Your task to perform on an android device: Search for vegetarian restaurants on Maps Image 0: 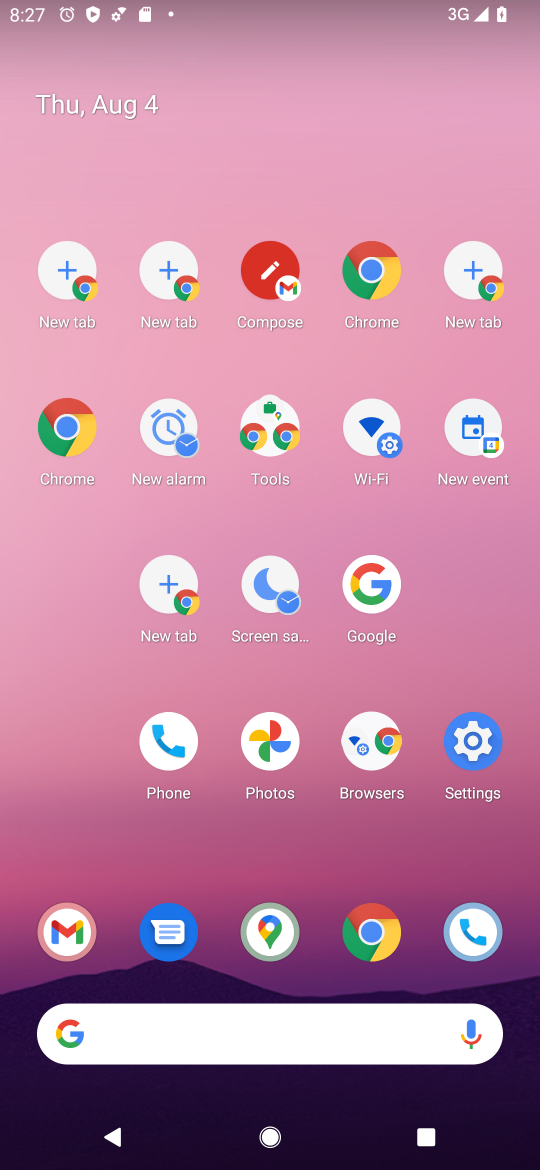
Step 0: drag from (246, 669) to (324, 618)
Your task to perform on an android device: Search for vegetarian restaurants on Maps Image 1: 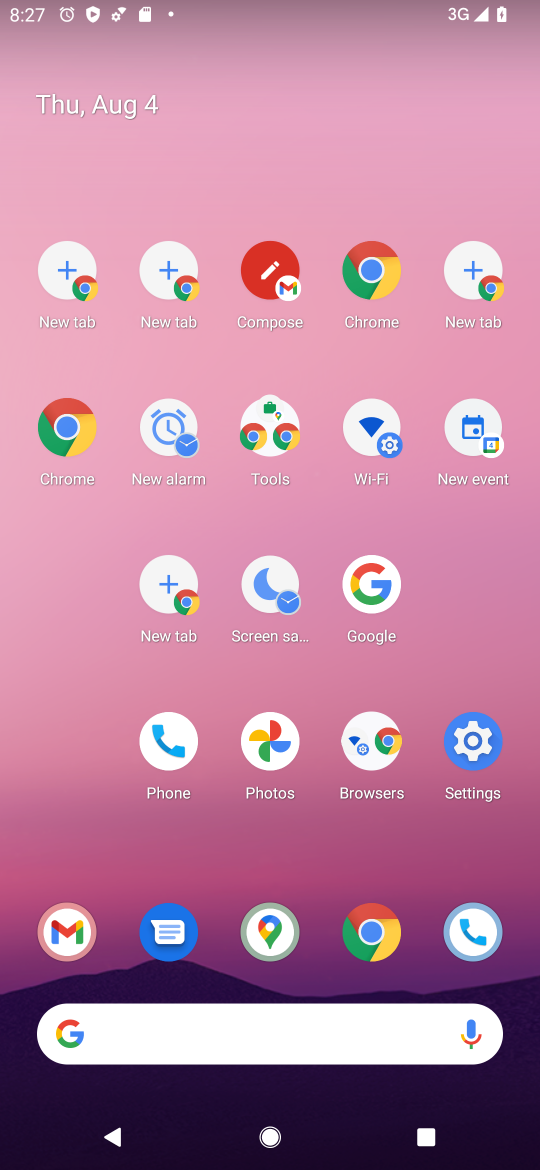
Step 1: drag from (377, 650) to (166, 442)
Your task to perform on an android device: Search for vegetarian restaurants on Maps Image 2: 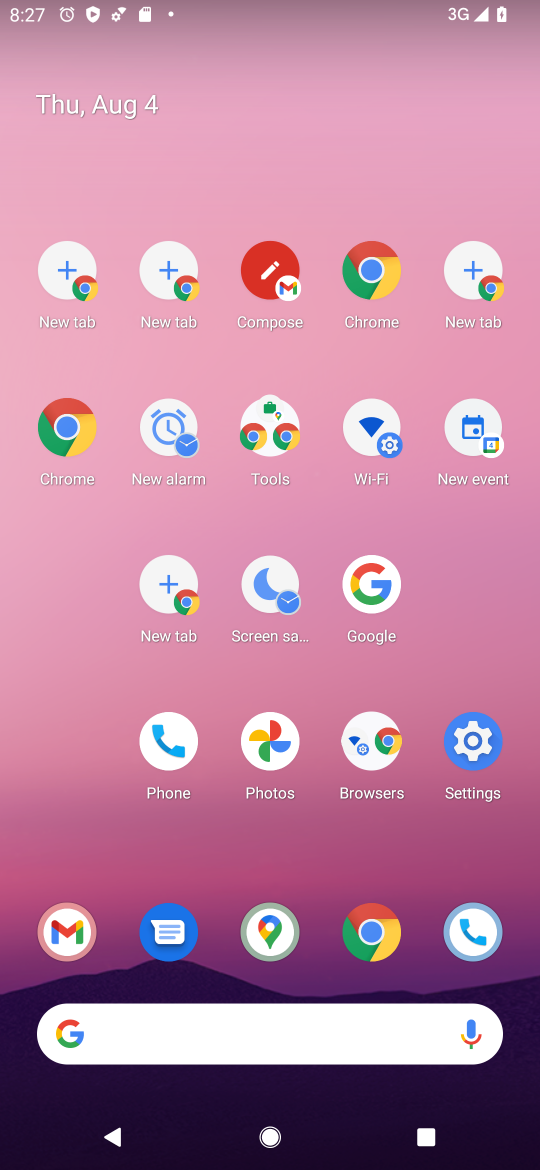
Step 2: drag from (292, 802) to (216, 82)
Your task to perform on an android device: Search for vegetarian restaurants on Maps Image 3: 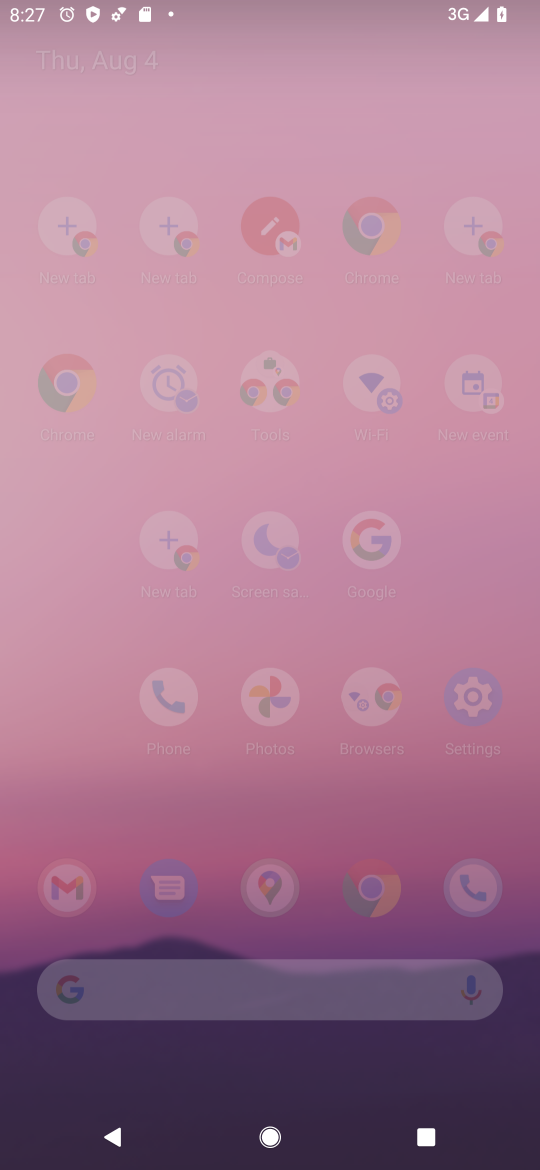
Step 3: drag from (214, 349) to (205, 21)
Your task to perform on an android device: Search for vegetarian restaurants on Maps Image 4: 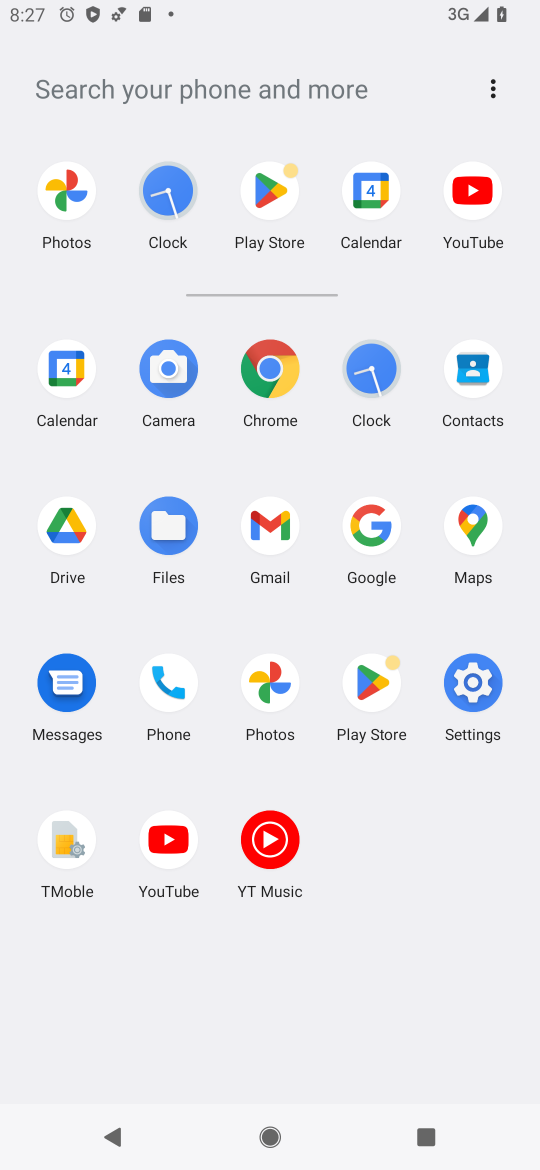
Step 4: click (466, 536)
Your task to perform on an android device: Search for vegetarian restaurants on Maps Image 5: 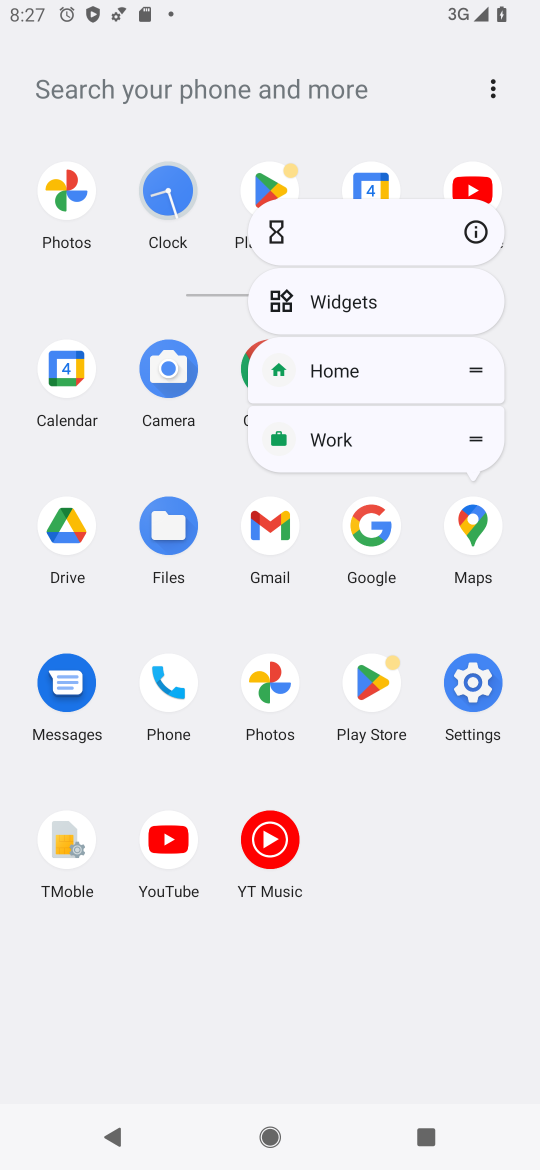
Step 5: click (471, 534)
Your task to perform on an android device: Search for vegetarian restaurants on Maps Image 6: 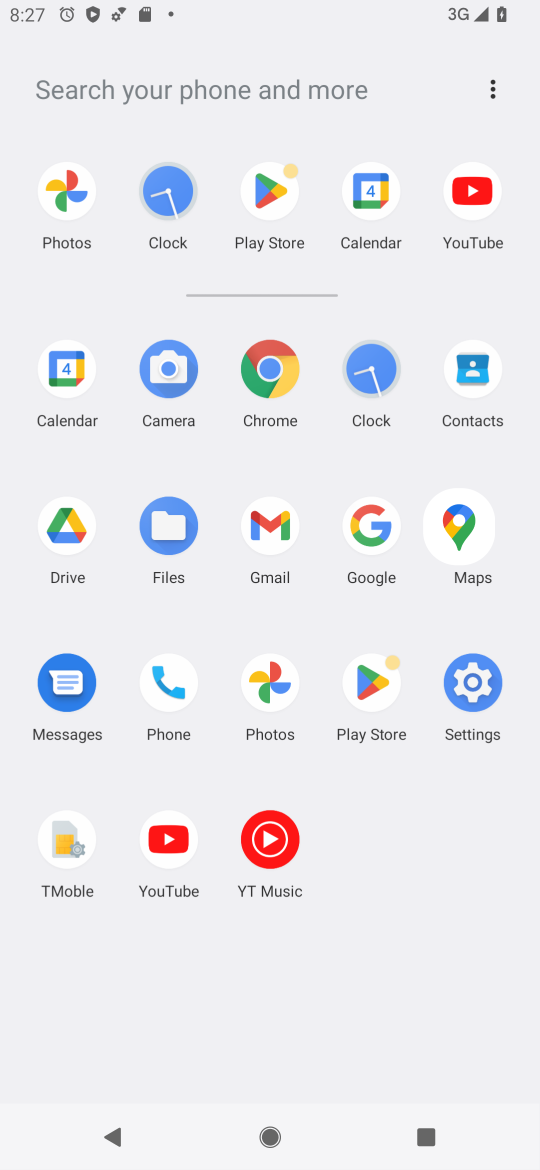
Step 6: click (360, 448)
Your task to perform on an android device: Search for vegetarian restaurants on Maps Image 7: 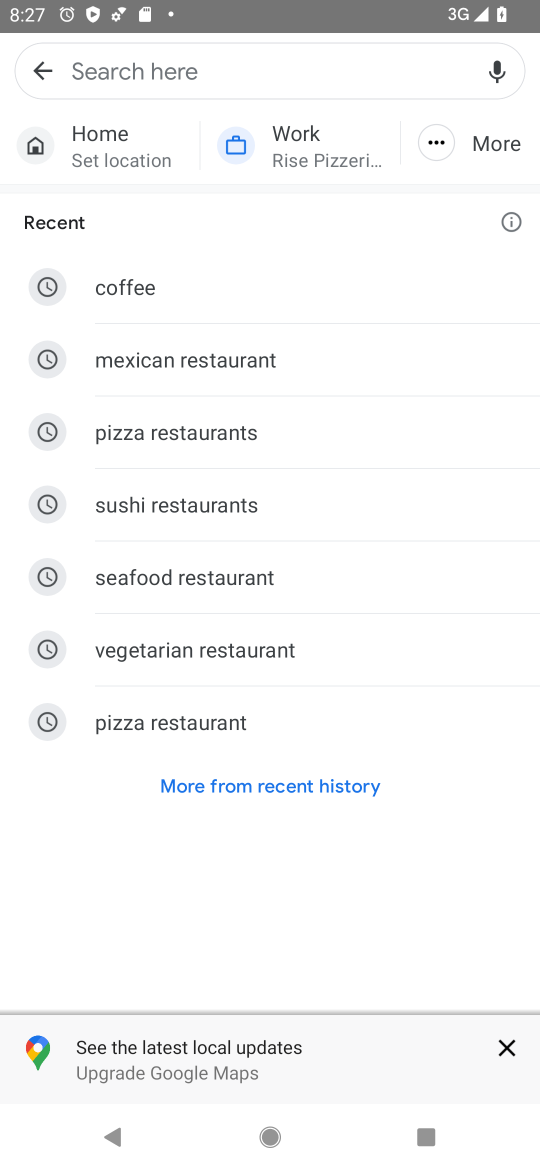
Step 7: click (200, 646)
Your task to perform on an android device: Search for vegetarian restaurants on Maps Image 8: 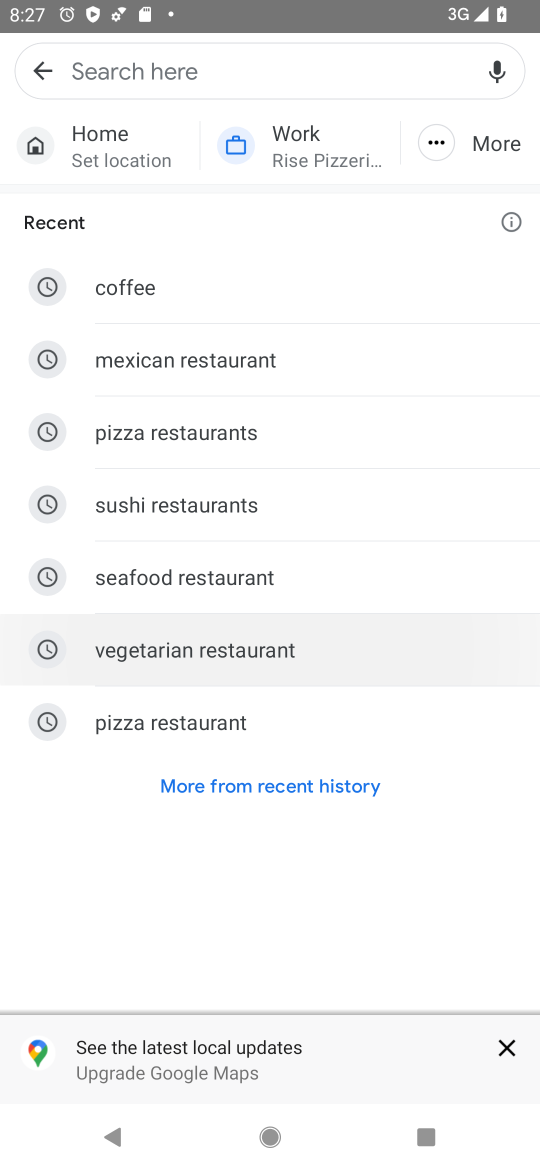
Step 8: click (200, 643)
Your task to perform on an android device: Search for vegetarian restaurants on Maps Image 9: 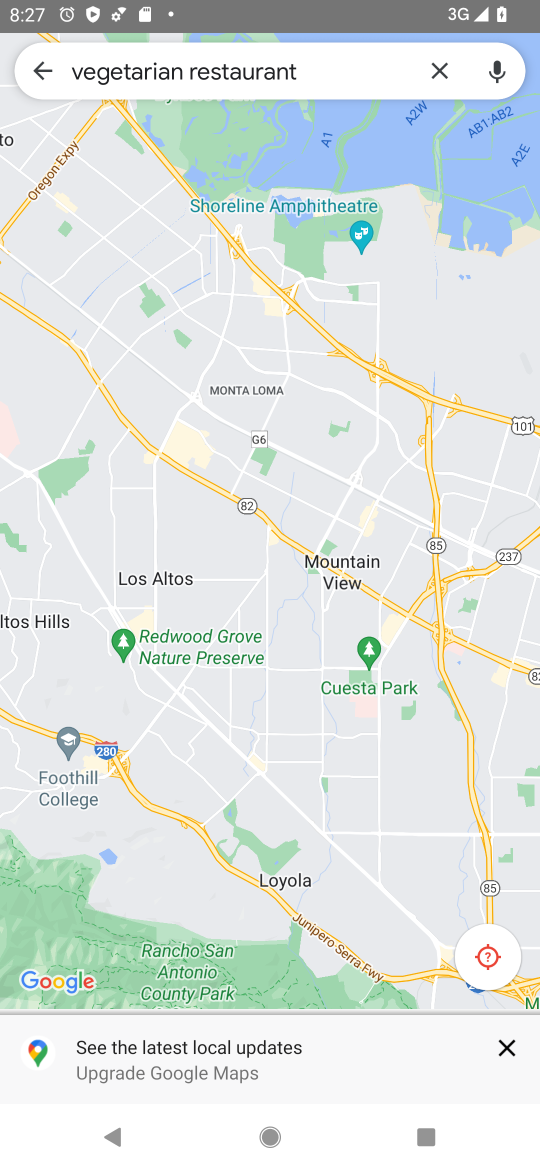
Step 9: task complete